Your task to perform on an android device: toggle priority inbox in the gmail app Image 0: 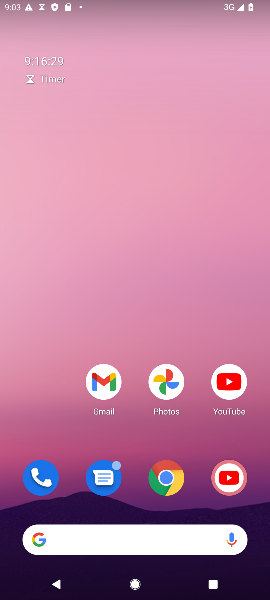
Step 0: click (100, 381)
Your task to perform on an android device: toggle priority inbox in the gmail app Image 1: 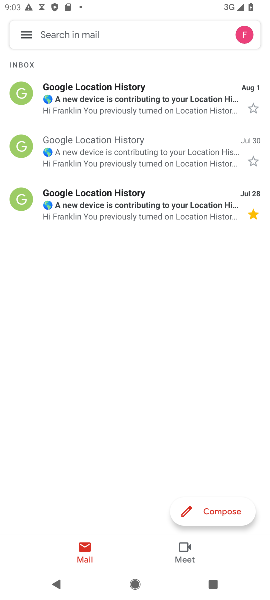
Step 1: click (21, 42)
Your task to perform on an android device: toggle priority inbox in the gmail app Image 2: 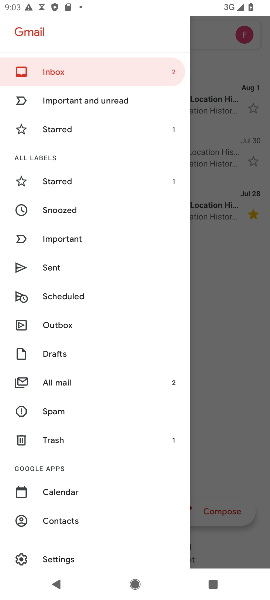
Step 2: click (74, 562)
Your task to perform on an android device: toggle priority inbox in the gmail app Image 3: 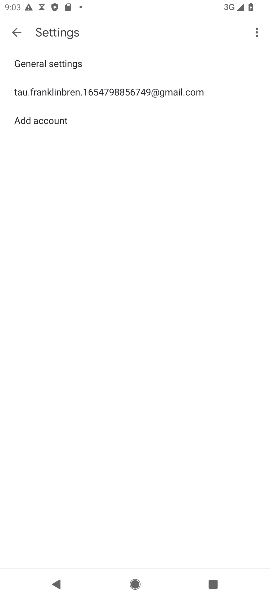
Step 3: click (96, 96)
Your task to perform on an android device: toggle priority inbox in the gmail app Image 4: 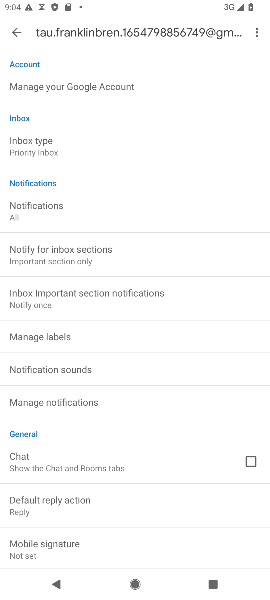
Step 4: click (109, 143)
Your task to perform on an android device: toggle priority inbox in the gmail app Image 5: 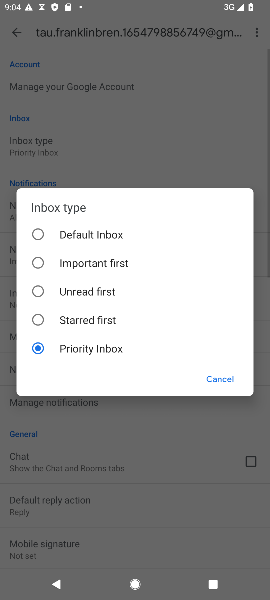
Step 5: click (103, 232)
Your task to perform on an android device: toggle priority inbox in the gmail app Image 6: 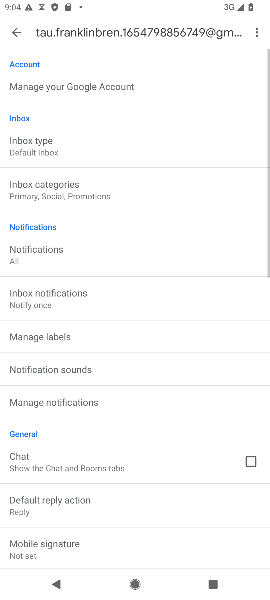
Step 6: task complete